Your task to perform on an android device: Open calendar and show me the second week of next month Image 0: 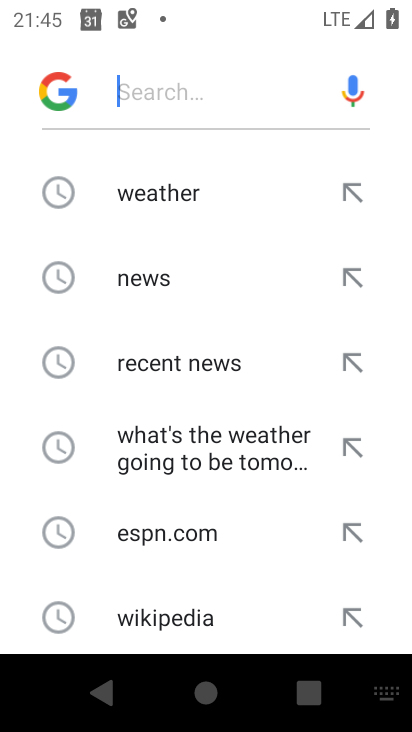
Step 0: press home button
Your task to perform on an android device: Open calendar and show me the second week of next month Image 1: 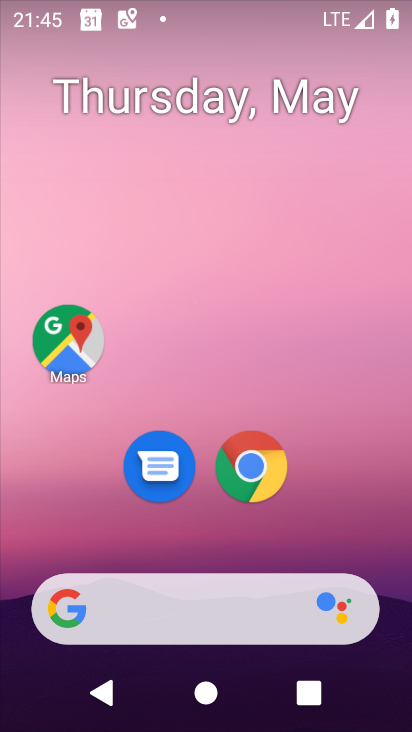
Step 1: drag from (340, 501) to (324, 154)
Your task to perform on an android device: Open calendar and show me the second week of next month Image 2: 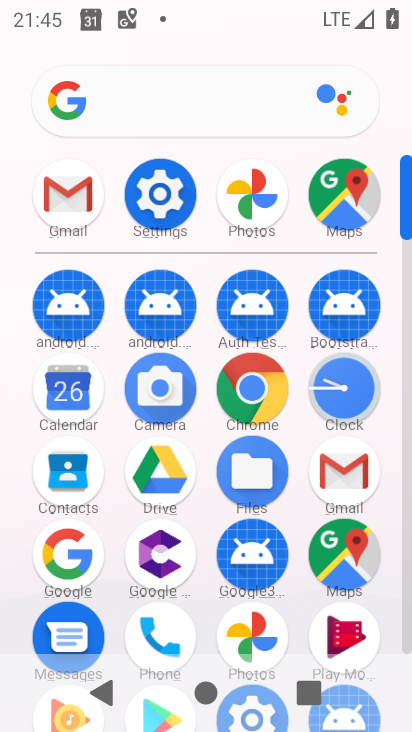
Step 2: click (79, 407)
Your task to perform on an android device: Open calendar and show me the second week of next month Image 3: 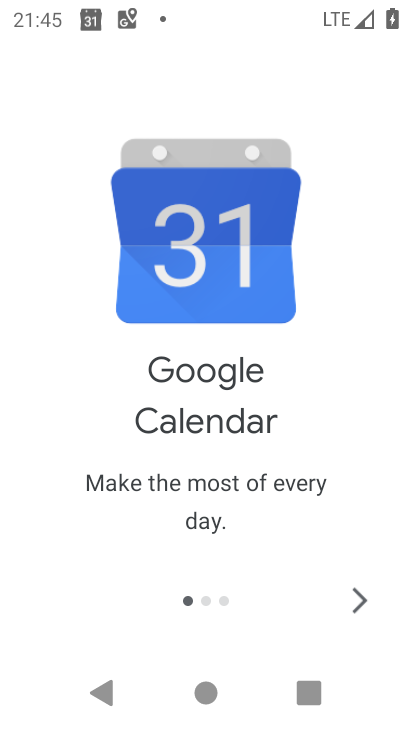
Step 3: click (358, 594)
Your task to perform on an android device: Open calendar and show me the second week of next month Image 4: 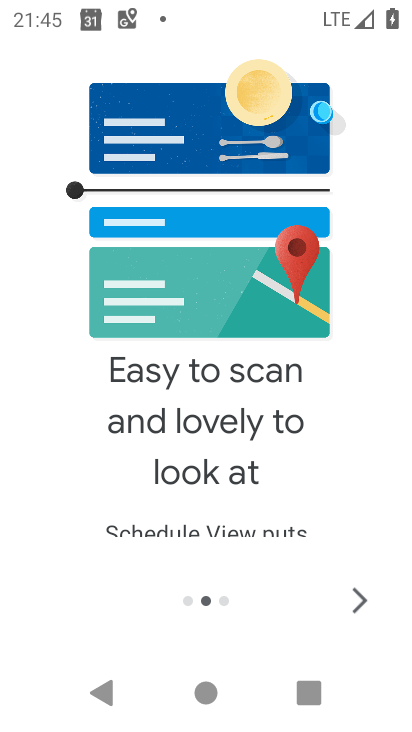
Step 4: click (358, 594)
Your task to perform on an android device: Open calendar and show me the second week of next month Image 5: 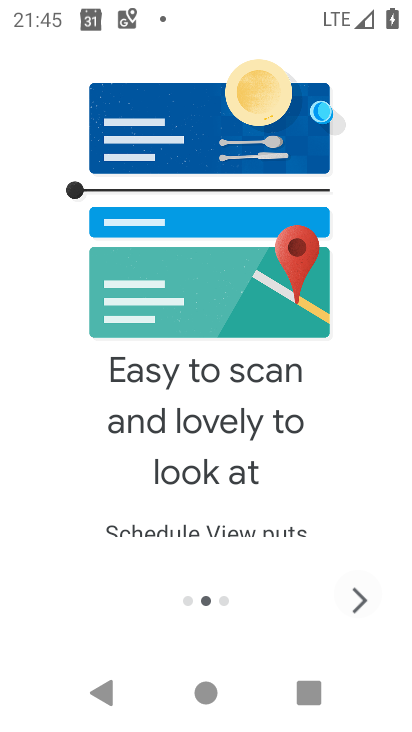
Step 5: click (358, 594)
Your task to perform on an android device: Open calendar and show me the second week of next month Image 6: 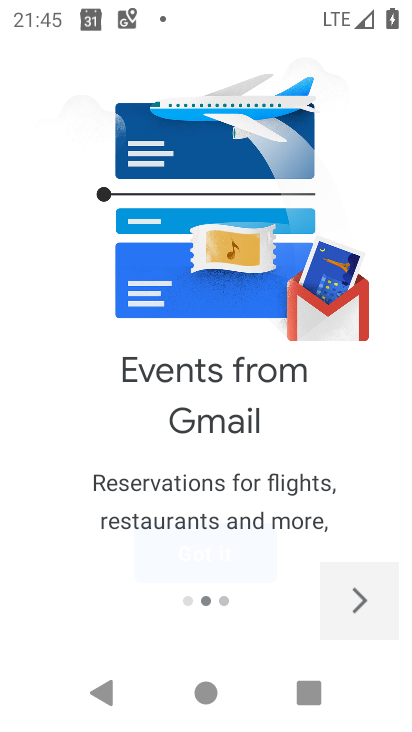
Step 6: click (358, 594)
Your task to perform on an android device: Open calendar and show me the second week of next month Image 7: 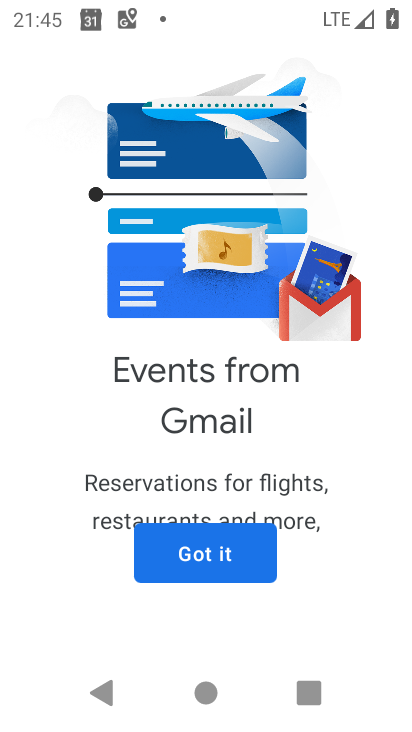
Step 7: click (225, 542)
Your task to perform on an android device: Open calendar and show me the second week of next month Image 8: 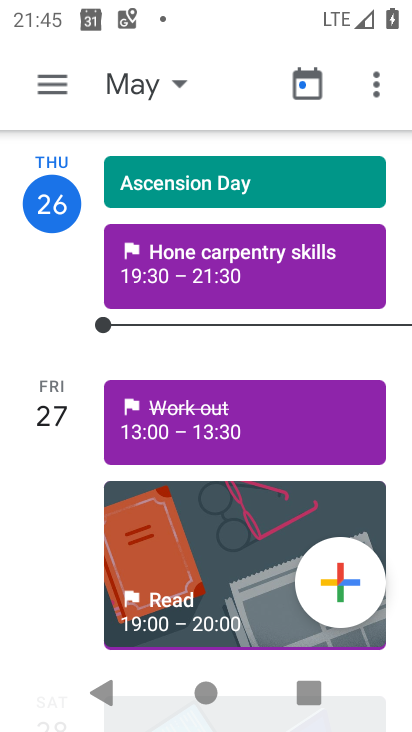
Step 8: click (172, 108)
Your task to perform on an android device: Open calendar and show me the second week of next month Image 9: 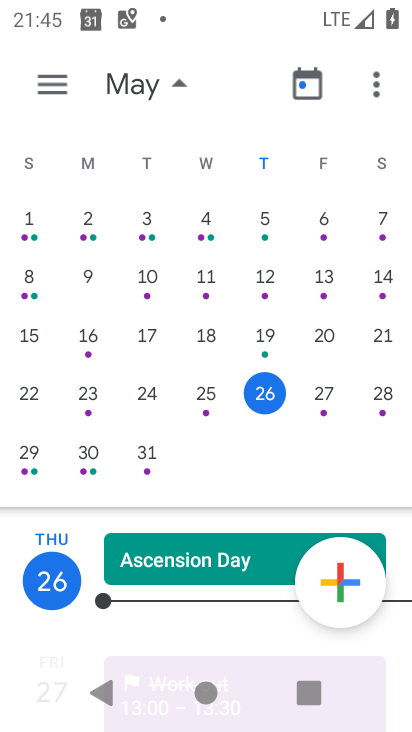
Step 9: task complete